Your task to perform on an android device: toggle data saver in the chrome app Image 0: 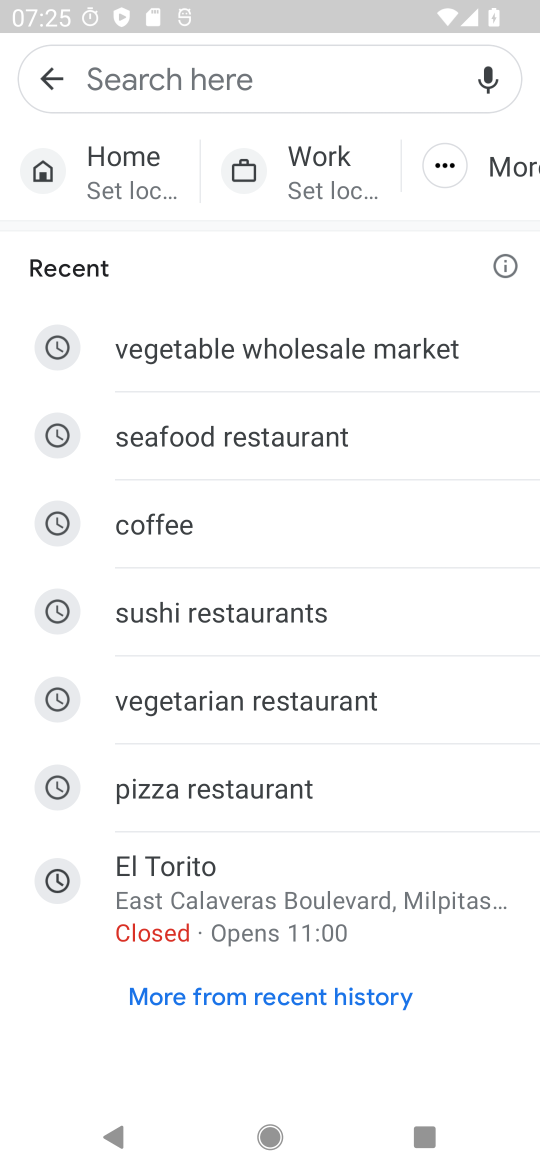
Step 0: press home button
Your task to perform on an android device: toggle data saver in the chrome app Image 1: 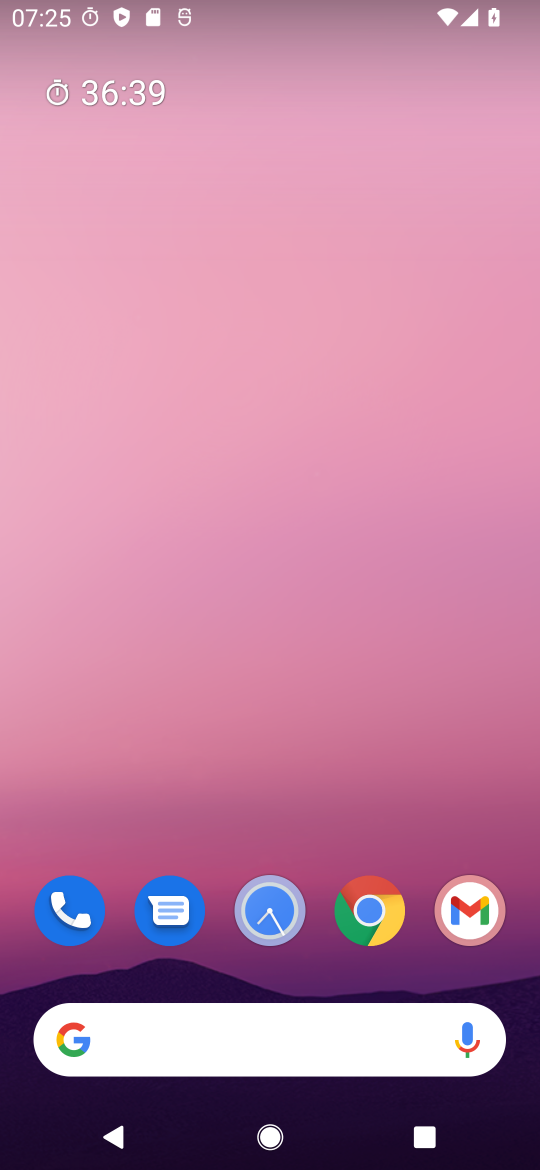
Step 1: drag from (399, 1030) to (375, 54)
Your task to perform on an android device: toggle data saver in the chrome app Image 2: 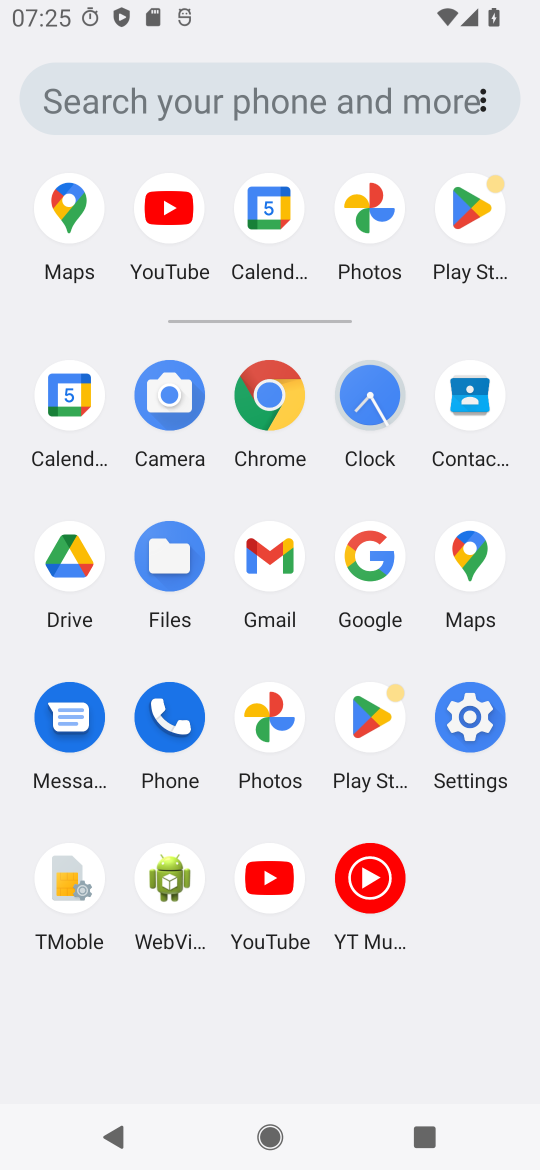
Step 2: click (485, 711)
Your task to perform on an android device: toggle data saver in the chrome app Image 3: 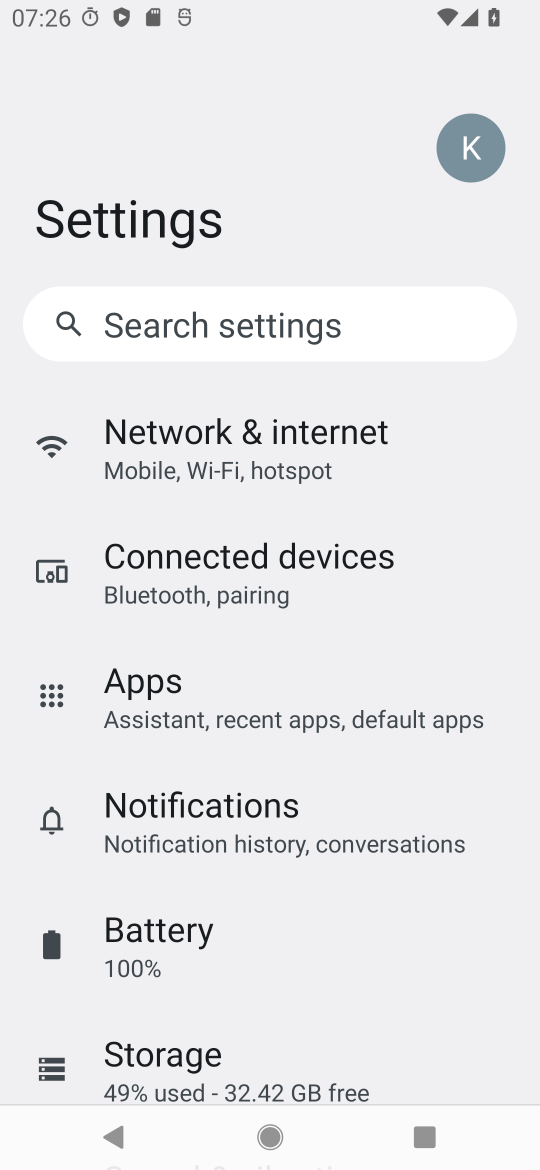
Step 3: press home button
Your task to perform on an android device: toggle data saver in the chrome app Image 4: 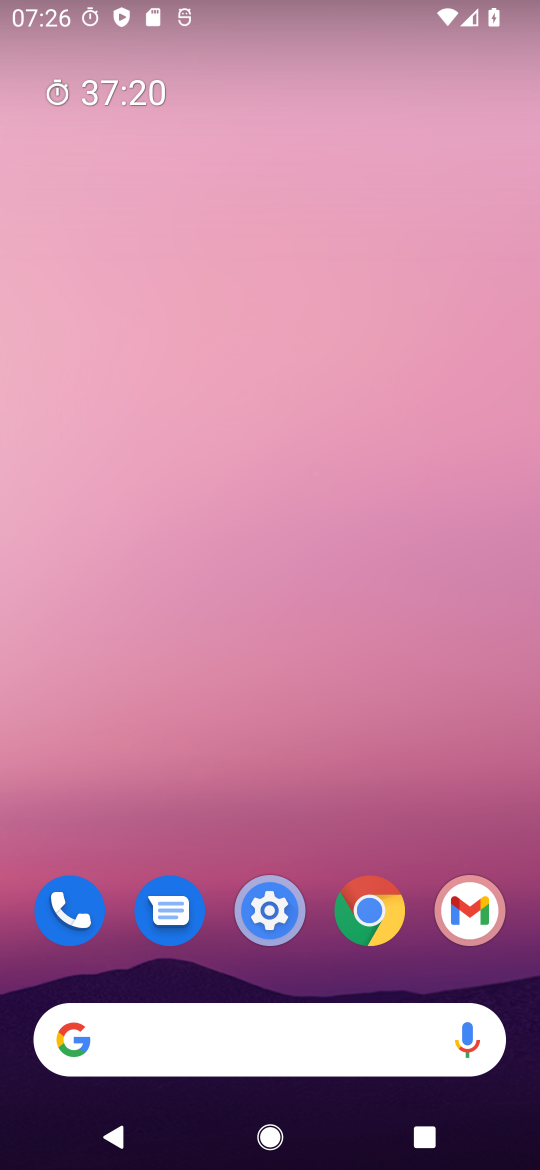
Step 4: drag from (215, 1037) to (266, 71)
Your task to perform on an android device: toggle data saver in the chrome app Image 5: 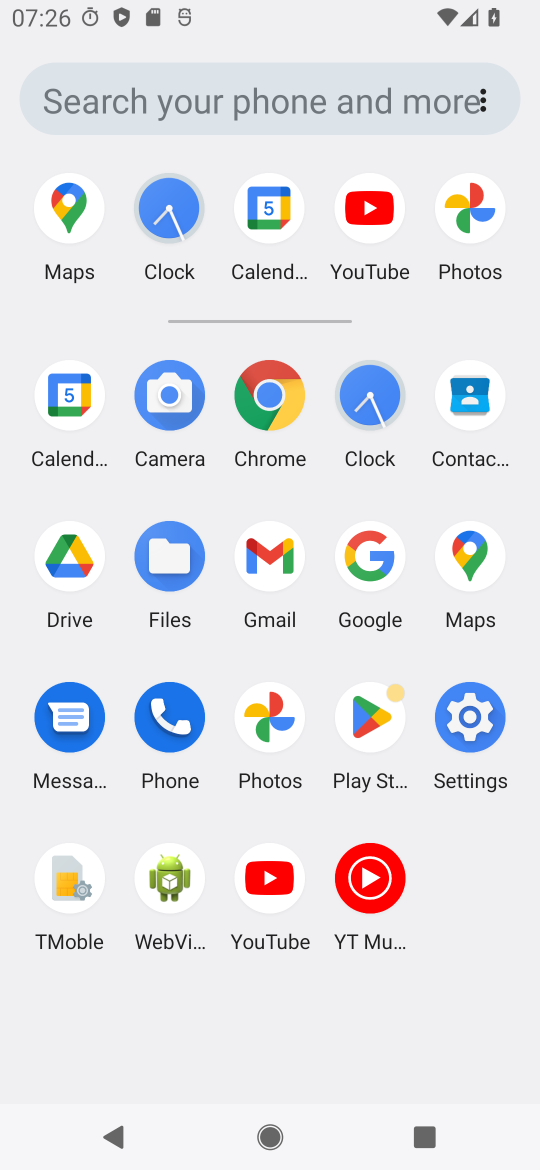
Step 5: click (260, 415)
Your task to perform on an android device: toggle data saver in the chrome app Image 6: 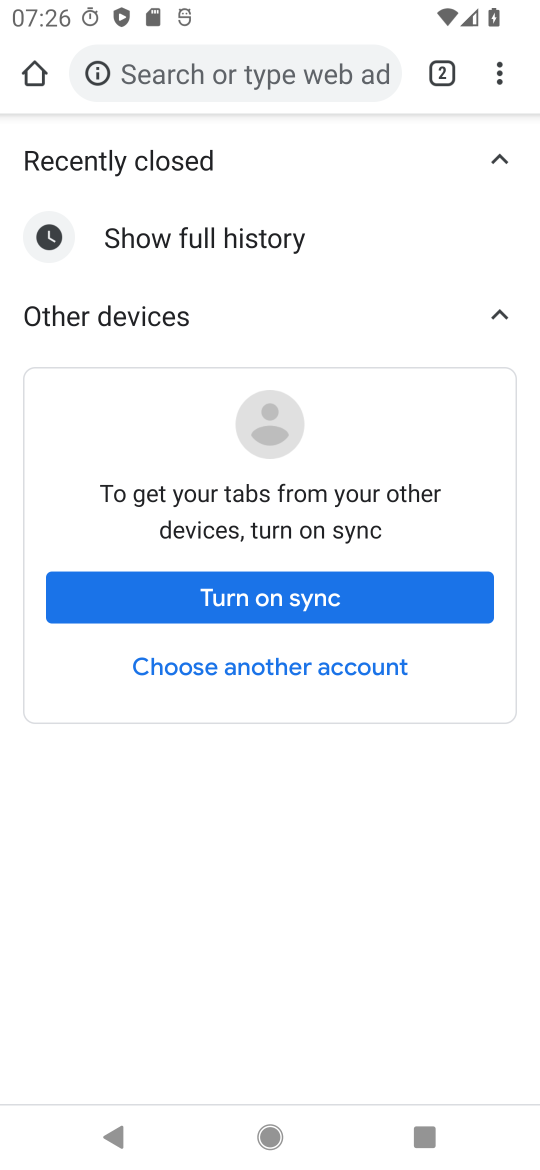
Step 6: click (510, 75)
Your task to perform on an android device: toggle data saver in the chrome app Image 7: 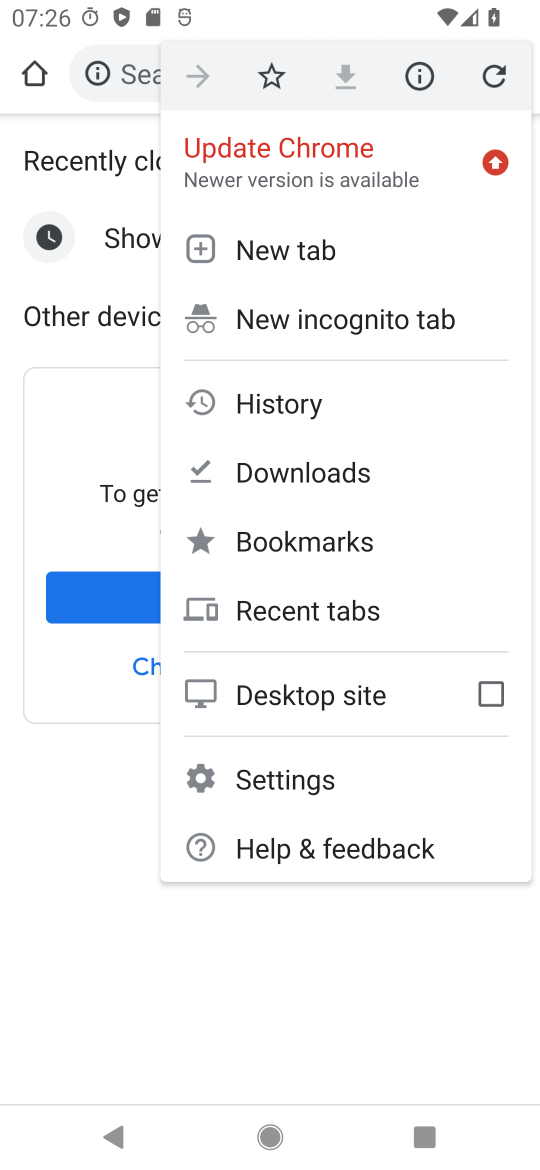
Step 7: click (323, 779)
Your task to perform on an android device: toggle data saver in the chrome app Image 8: 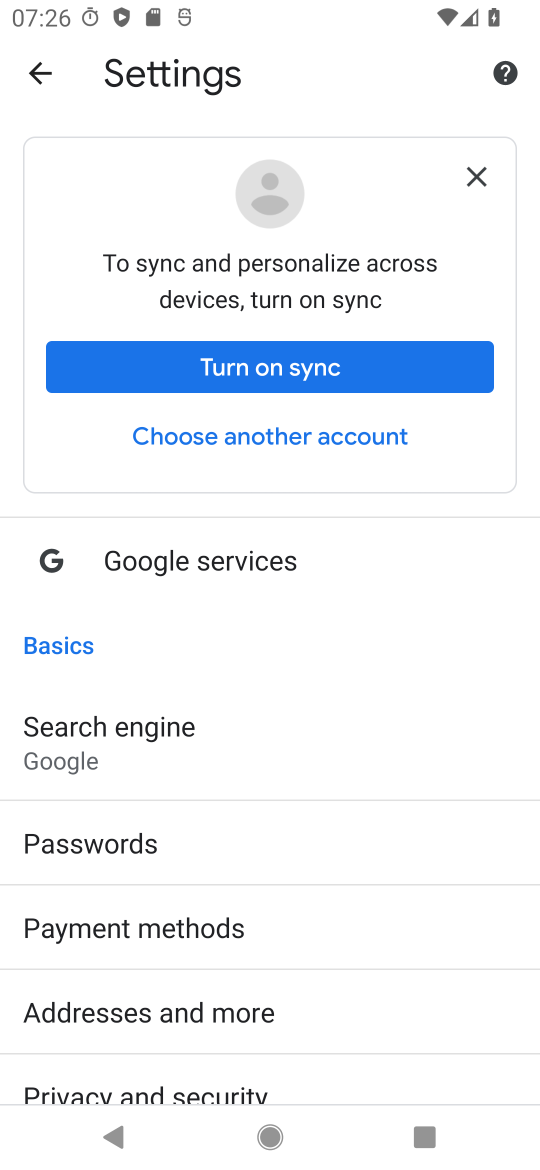
Step 8: drag from (276, 894) to (417, 282)
Your task to perform on an android device: toggle data saver in the chrome app Image 9: 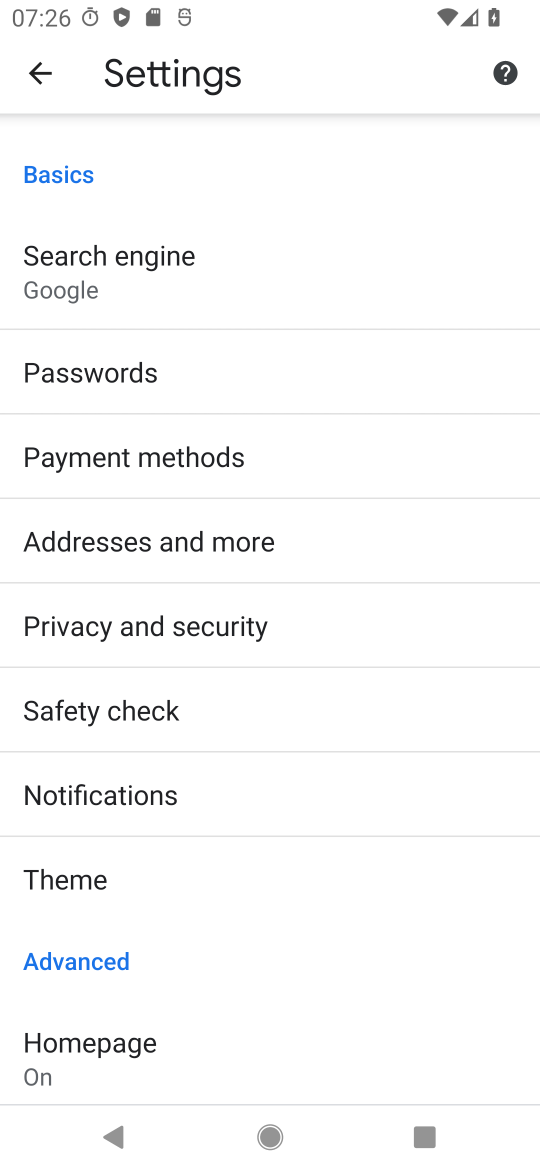
Step 9: drag from (292, 978) to (373, 363)
Your task to perform on an android device: toggle data saver in the chrome app Image 10: 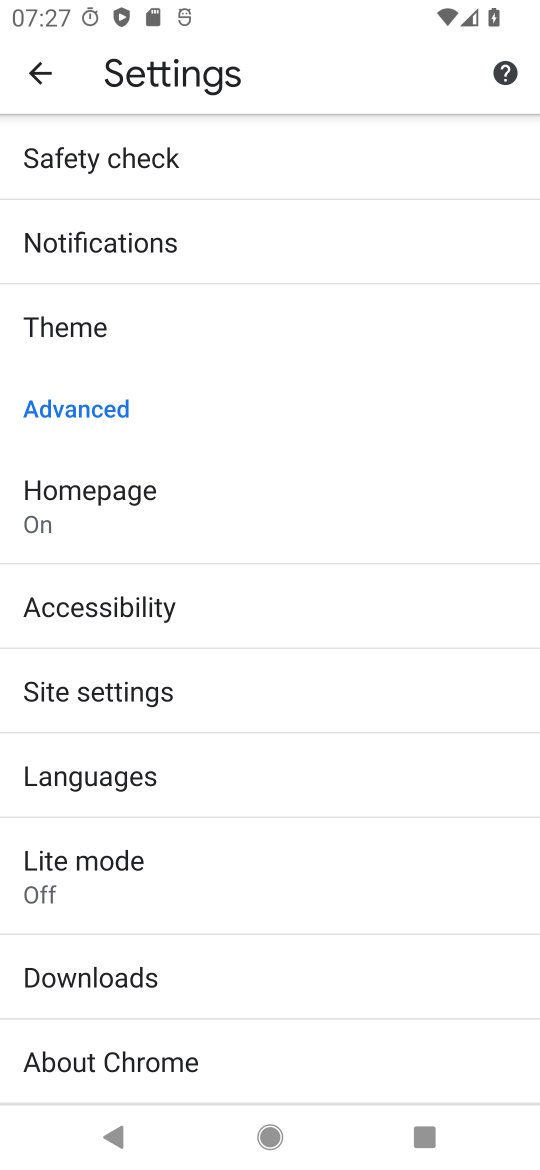
Step 10: click (70, 858)
Your task to perform on an android device: toggle data saver in the chrome app Image 11: 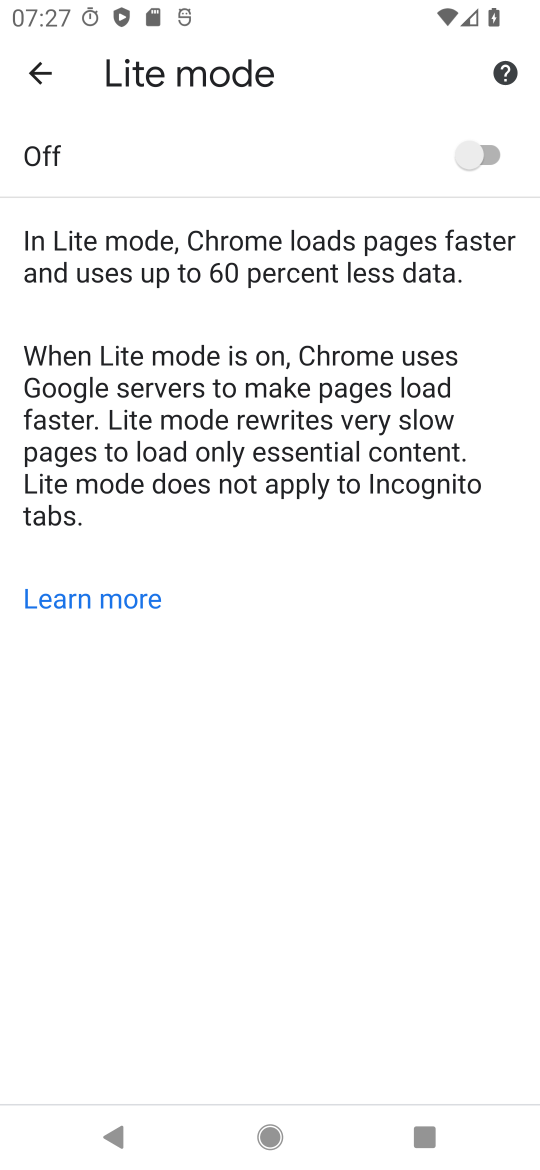
Step 11: click (492, 146)
Your task to perform on an android device: toggle data saver in the chrome app Image 12: 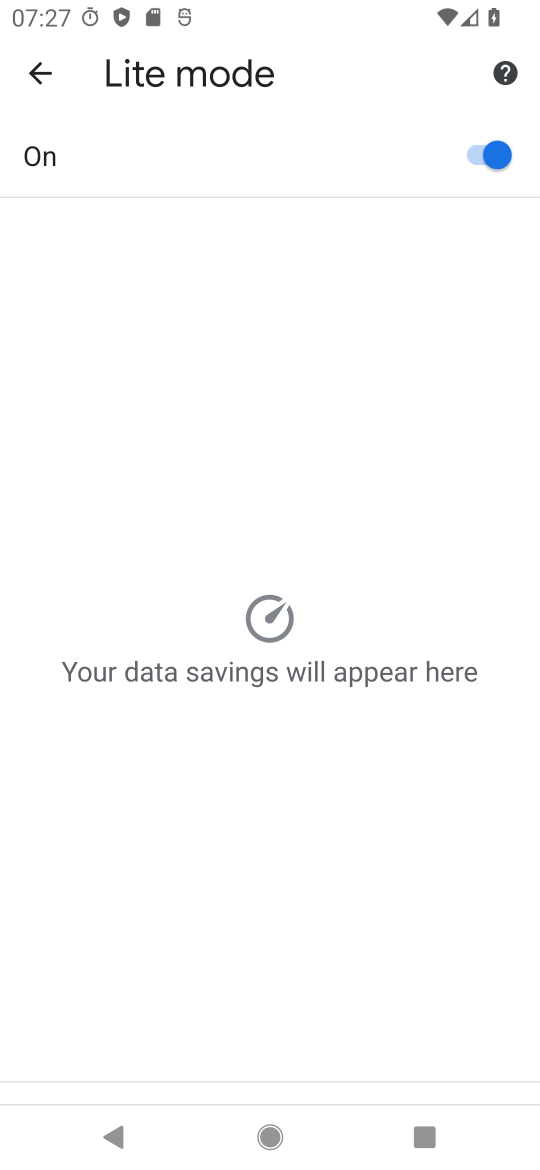
Step 12: task complete